Your task to perform on an android device: turn on sleep mode Image 0: 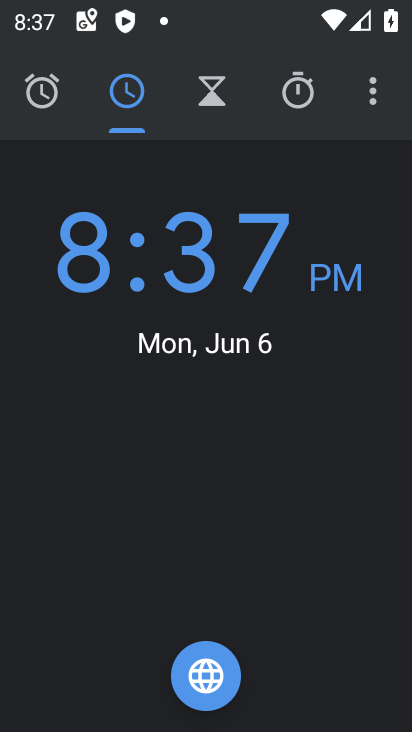
Step 0: press home button
Your task to perform on an android device: turn on sleep mode Image 1: 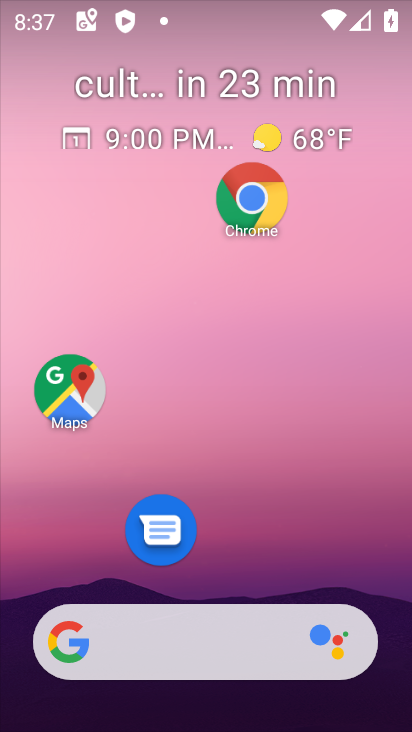
Step 1: drag from (212, 562) to (194, 114)
Your task to perform on an android device: turn on sleep mode Image 2: 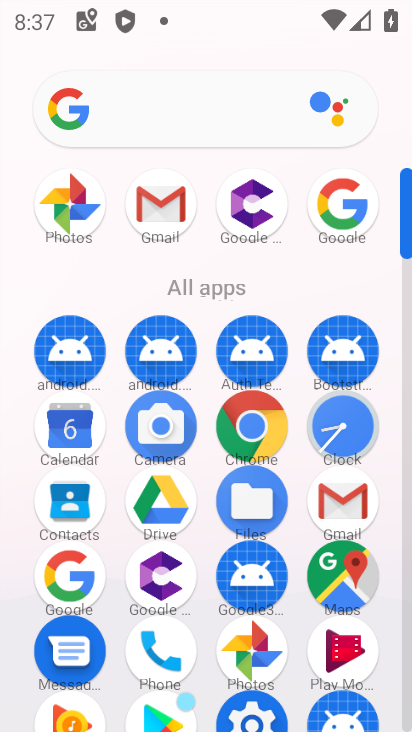
Step 2: drag from (190, 526) to (202, 258)
Your task to perform on an android device: turn on sleep mode Image 3: 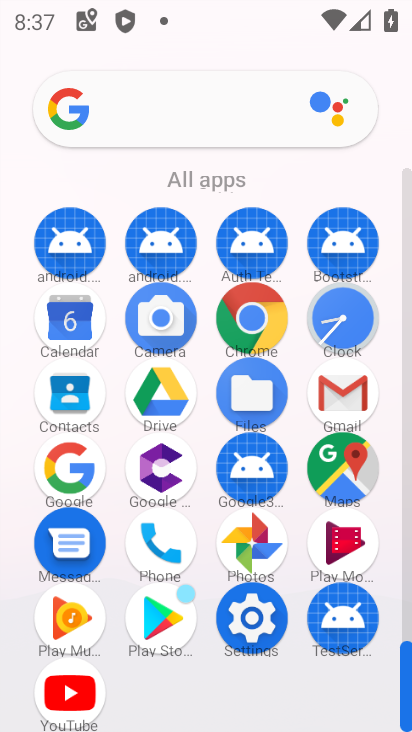
Step 3: click (267, 634)
Your task to perform on an android device: turn on sleep mode Image 4: 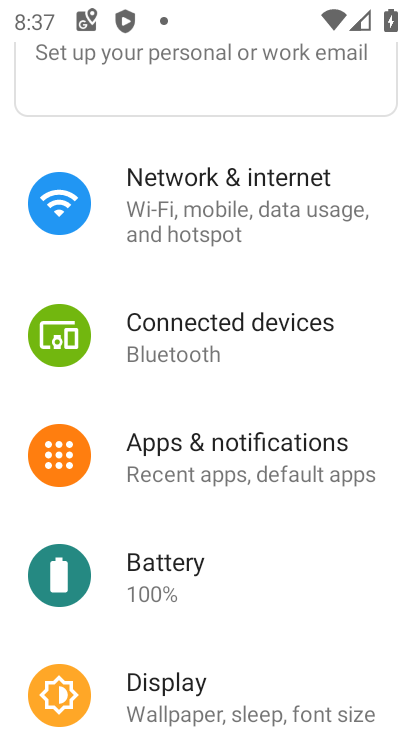
Step 4: click (220, 697)
Your task to perform on an android device: turn on sleep mode Image 5: 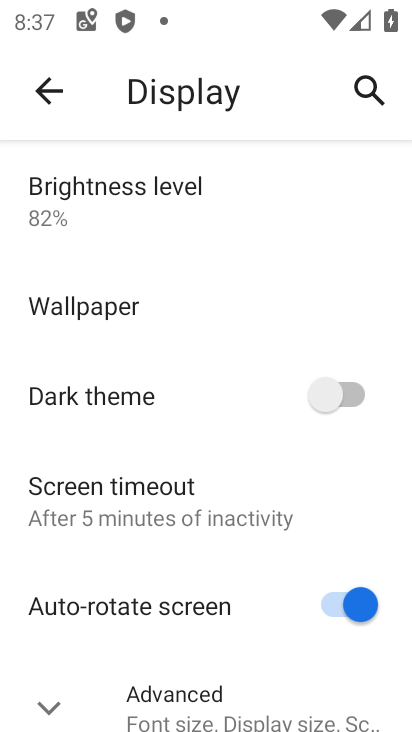
Step 5: click (163, 499)
Your task to perform on an android device: turn on sleep mode Image 6: 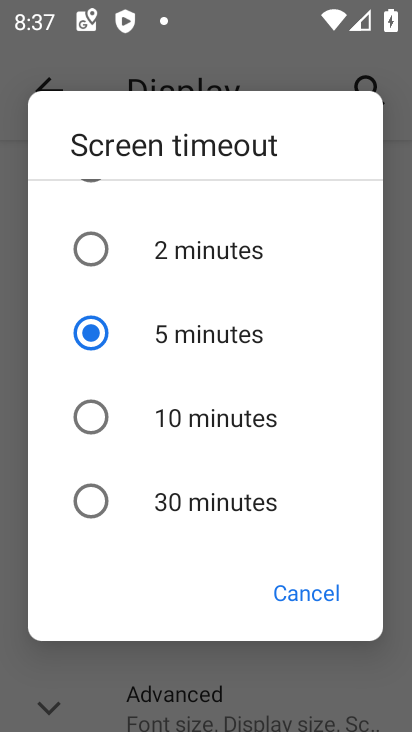
Step 6: click (163, 412)
Your task to perform on an android device: turn on sleep mode Image 7: 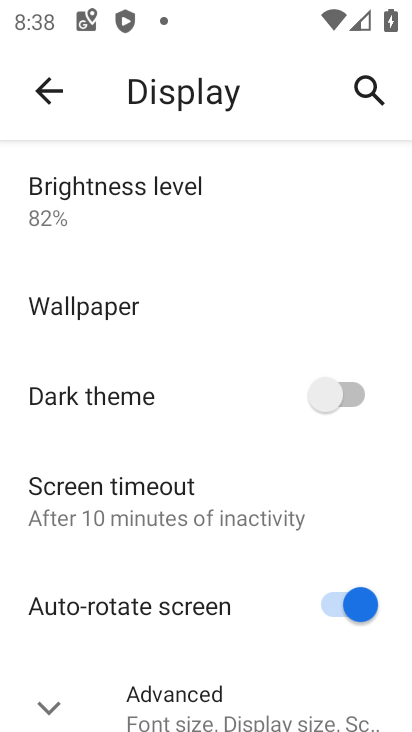
Step 7: task complete